Your task to perform on an android device: open device folders in google photos Image 0: 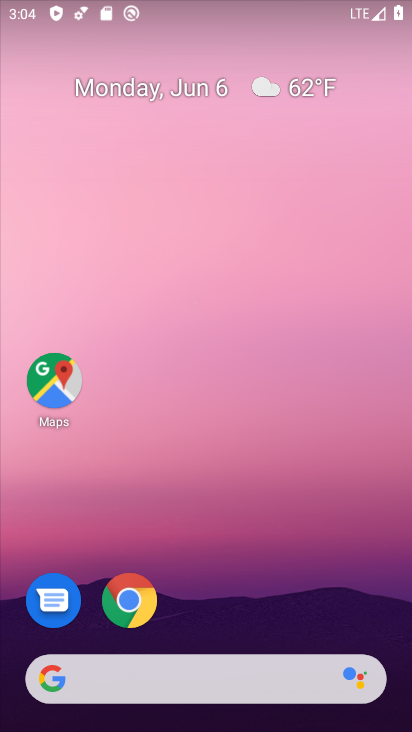
Step 0: drag from (262, 583) to (197, 124)
Your task to perform on an android device: open device folders in google photos Image 1: 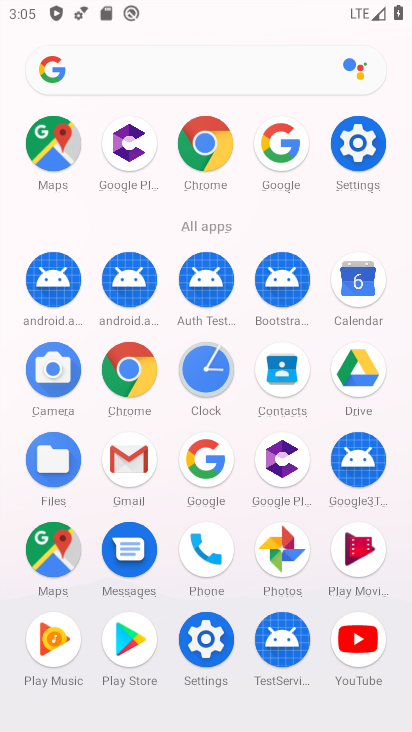
Step 1: click (283, 549)
Your task to perform on an android device: open device folders in google photos Image 2: 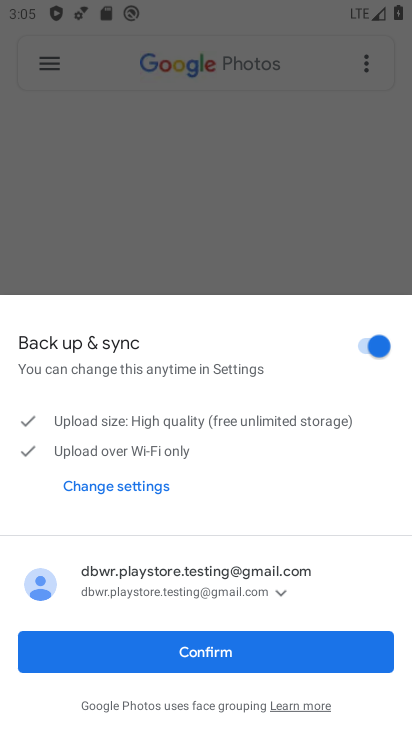
Step 2: click (243, 646)
Your task to perform on an android device: open device folders in google photos Image 3: 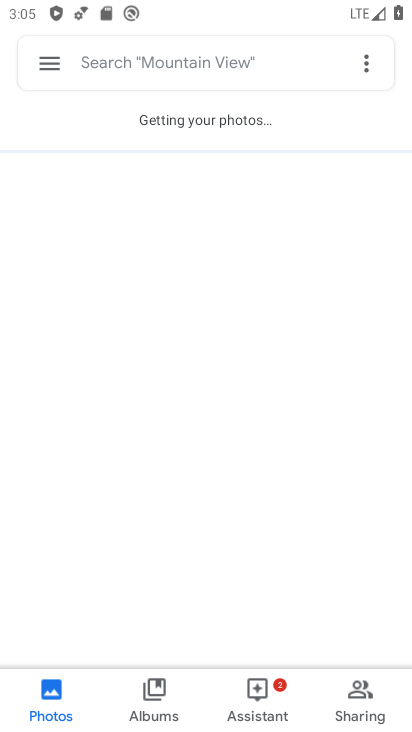
Step 3: click (50, 63)
Your task to perform on an android device: open device folders in google photos Image 4: 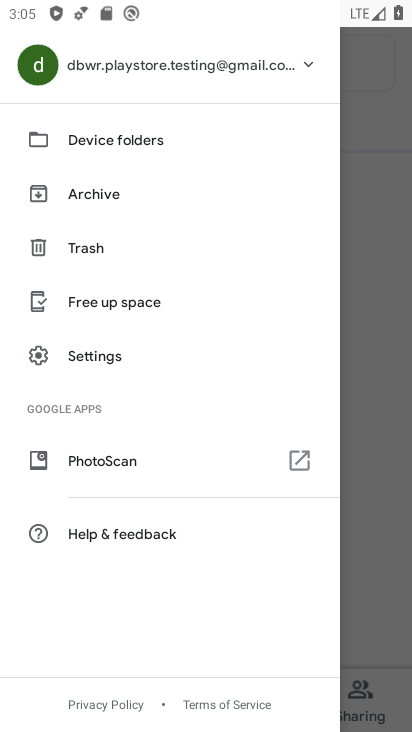
Step 4: click (111, 147)
Your task to perform on an android device: open device folders in google photos Image 5: 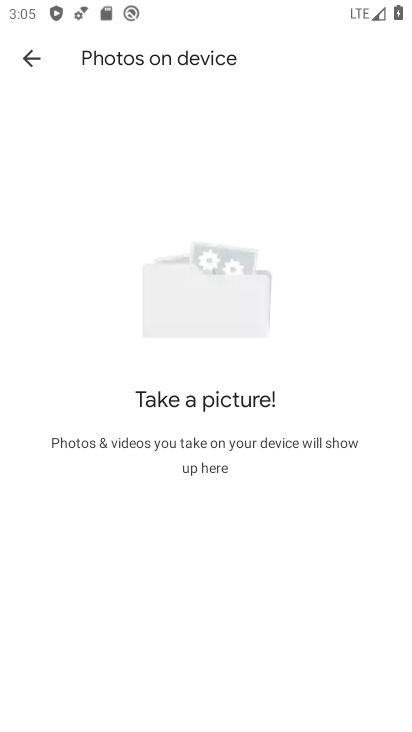
Step 5: task complete